Your task to perform on an android device: Open calendar and show me the second week of next month Image 0: 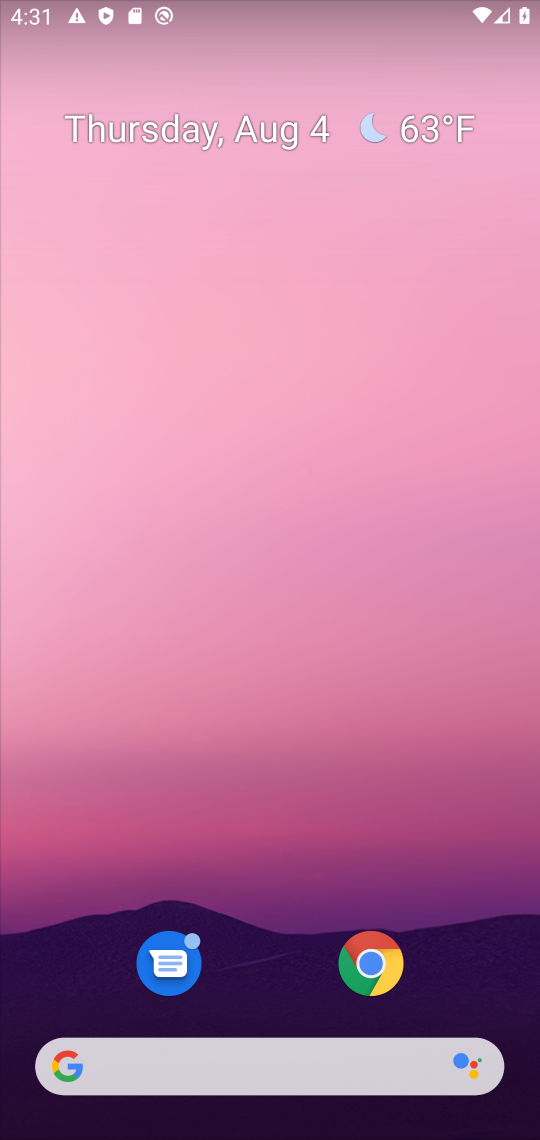
Step 0: press home button
Your task to perform on an android device: Open calendar and show me the second week of next month Image 1: 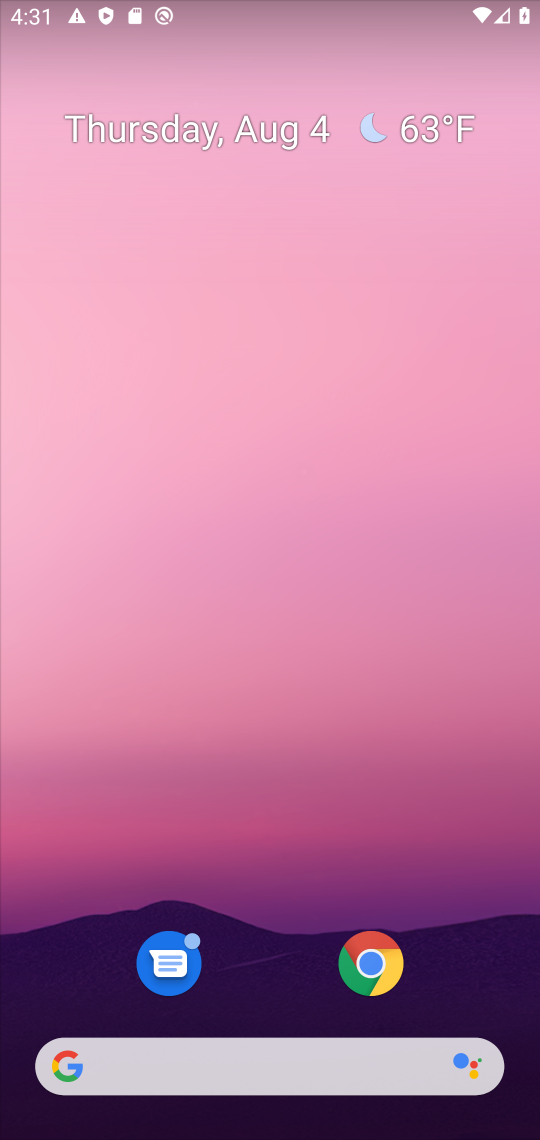
Step 1: drag from (251, 849) to (236, 290)
Your task to perform on an android device: Open calendar and show me the second week of next month Image 2: 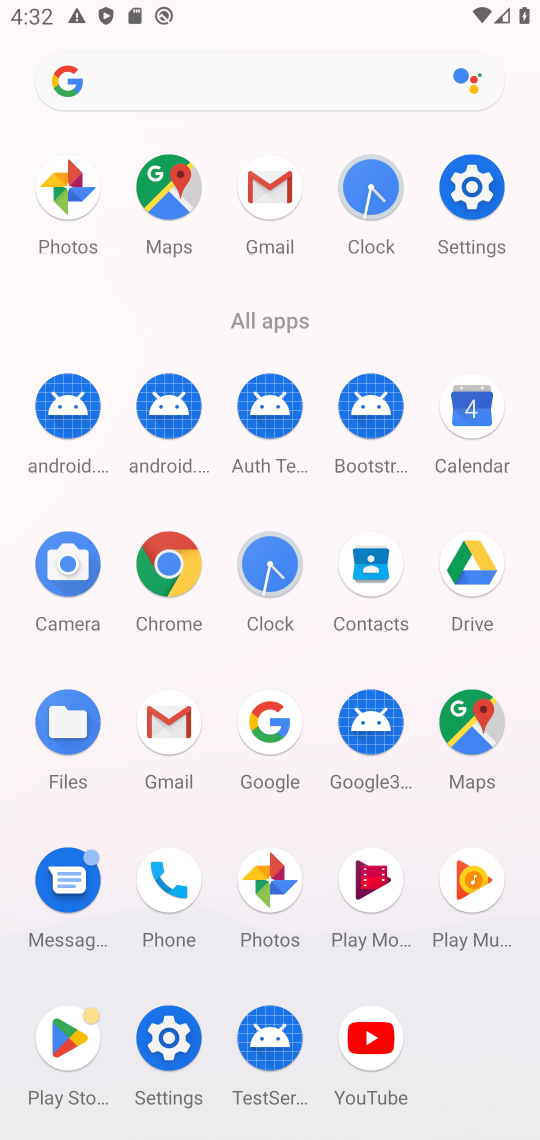
Step 2: click (477, 396)
Your task to perform on an android device: Open calendar and show me the second week of next month Image 3: 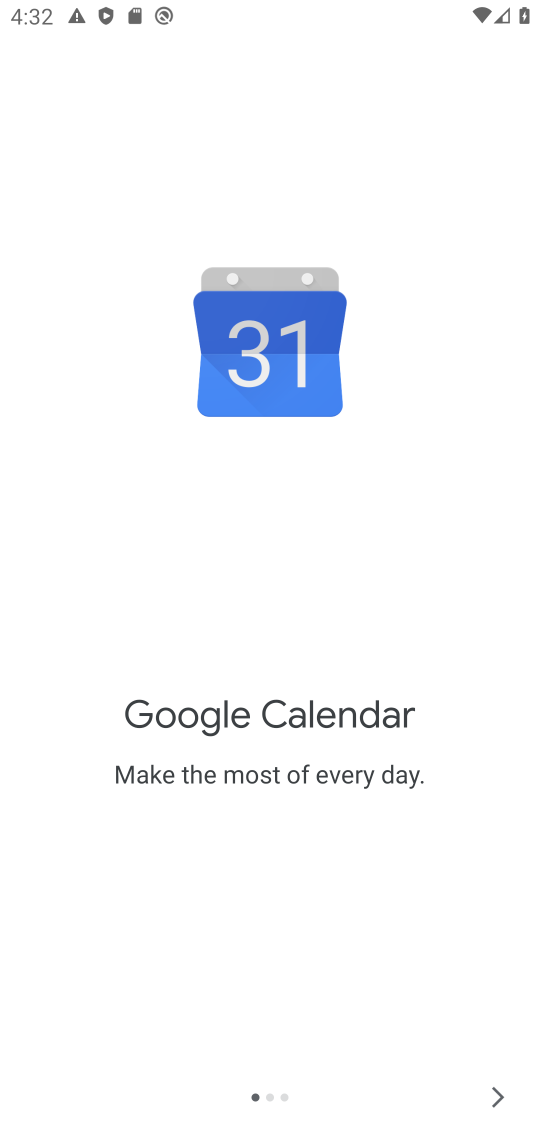
Step 3: click (491, 1093)
Your task to perform on an android device: Open calendar and show me the second week of next month Image 4: 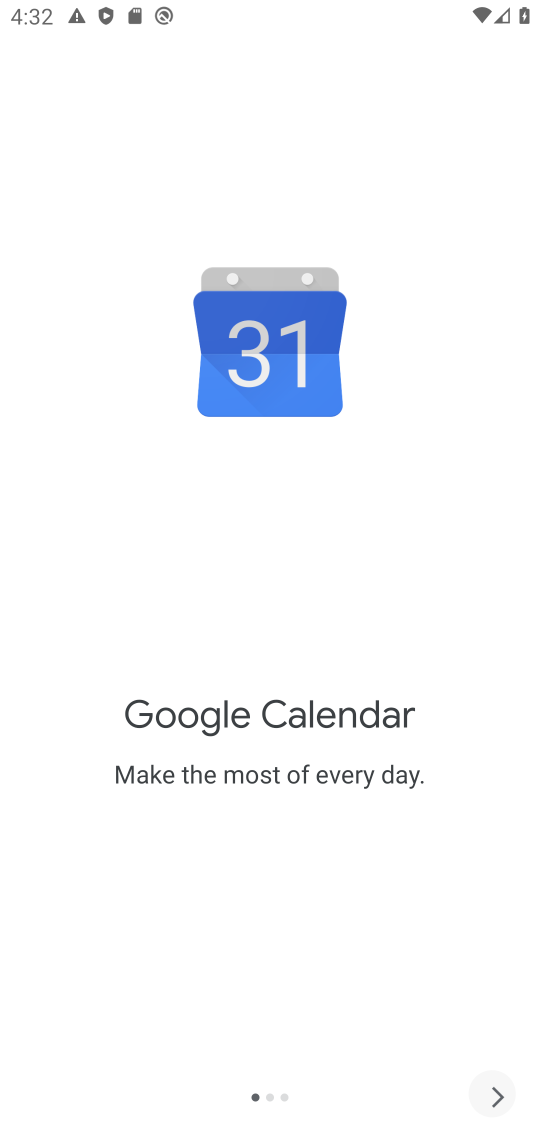
Step 4: click (491, 1093)
Your task to perform on an android device: Open calendar and show me the second week of next month Image 5: 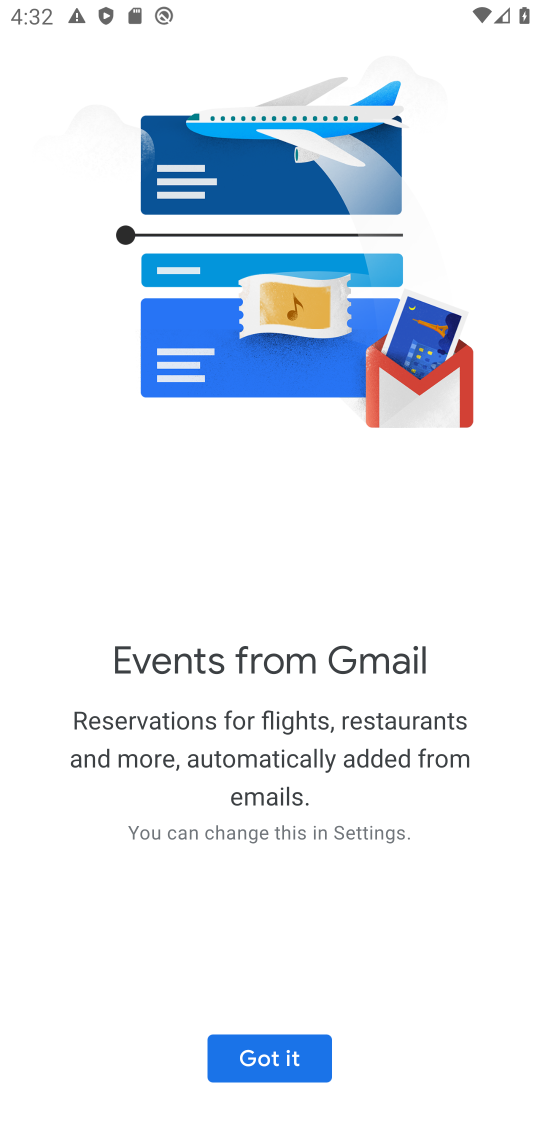
Step 5: click (291, 1060)
Your task to perform on an android device: Open calendar and show me the second week of next month Image 6: 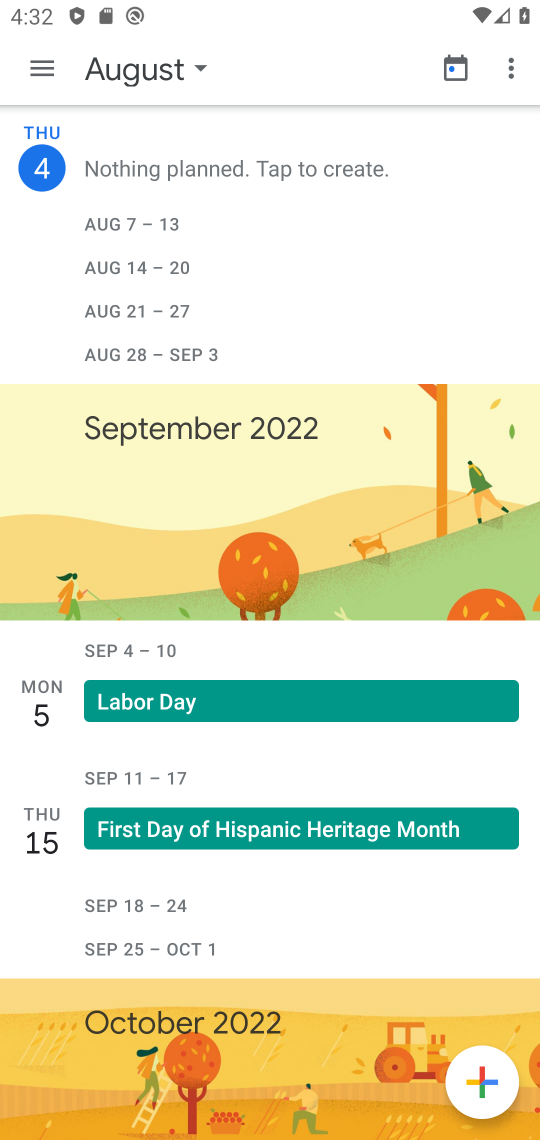
Step 6: click (46, 71)
Your task to perform on an android device: Open calendar and show me the second week of next month Image 7: 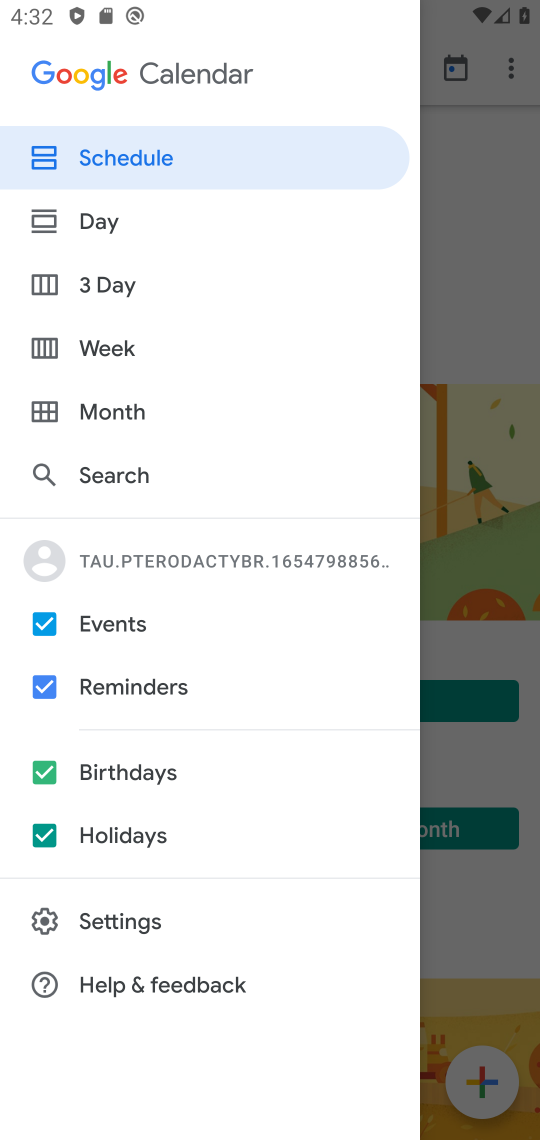
Step 7: click (99, 342)
Your task to perform on an android device: Open calendar and show me the second week of next month Image 8: 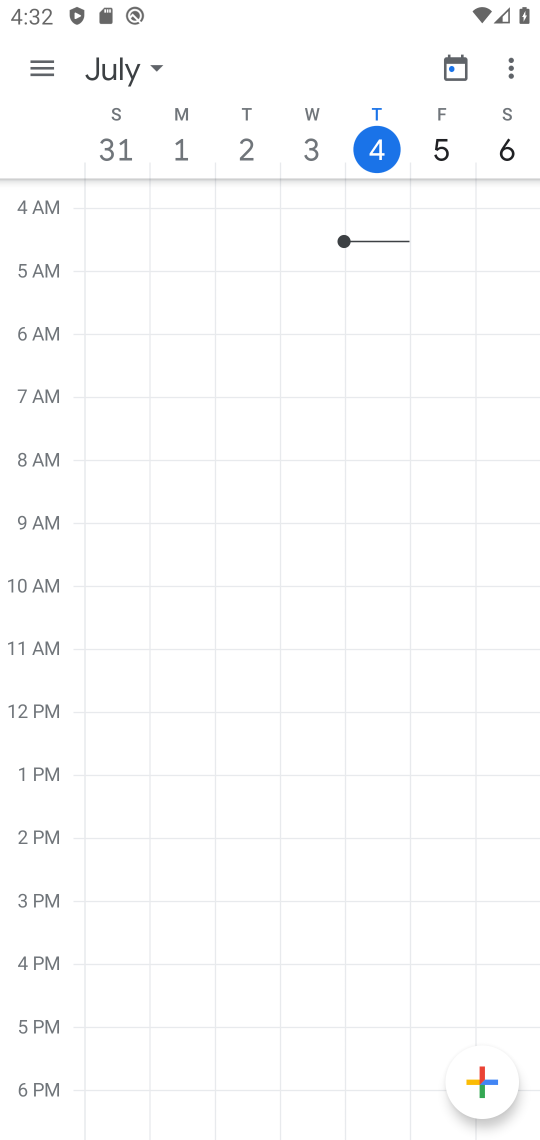
Step 8: click (158, 60)
Your task to perform on an android device: Open calendar and show me the second week of next month Image 9: 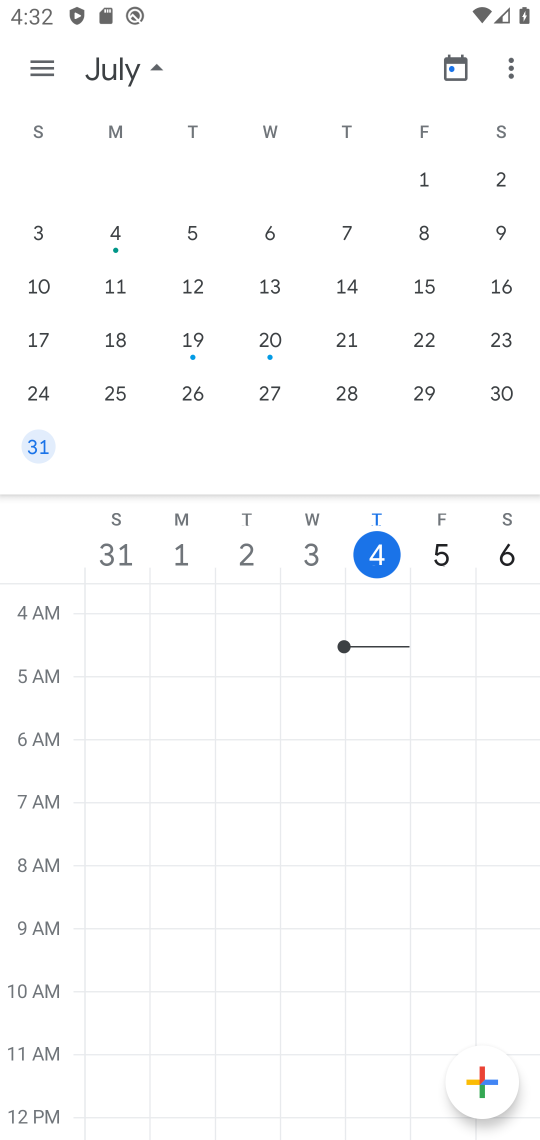
Step 9: drag from (423, 302) to (40, 230)
Your task to perform on an android device: Open calendar and show me the second week of next month Image 10: 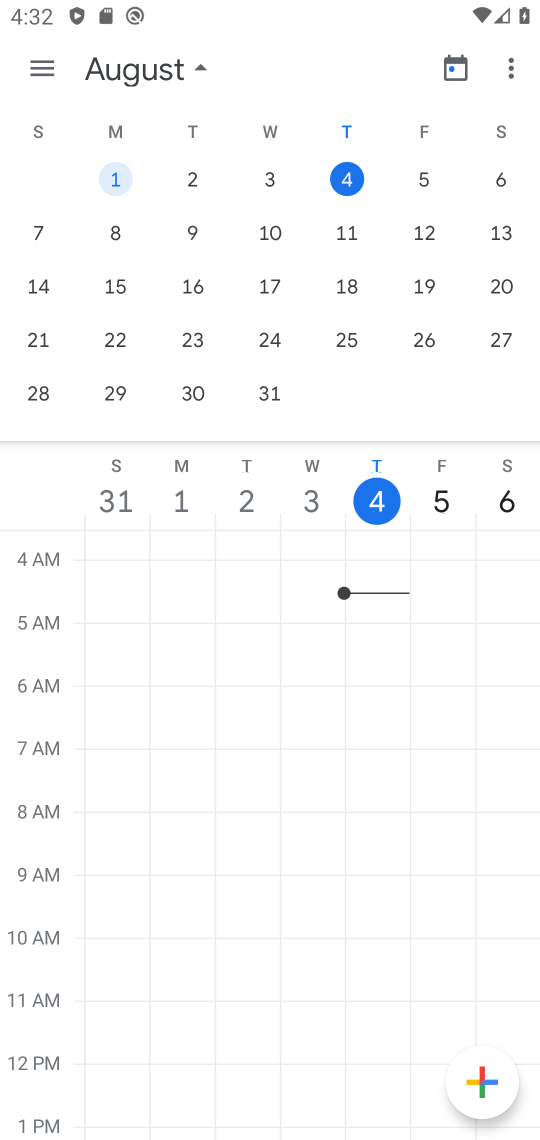
Step 10: drag from (503, 293) to (15, 345)
Your task to perform on an android device: Open calendar and show me the second week of next month Image 11: 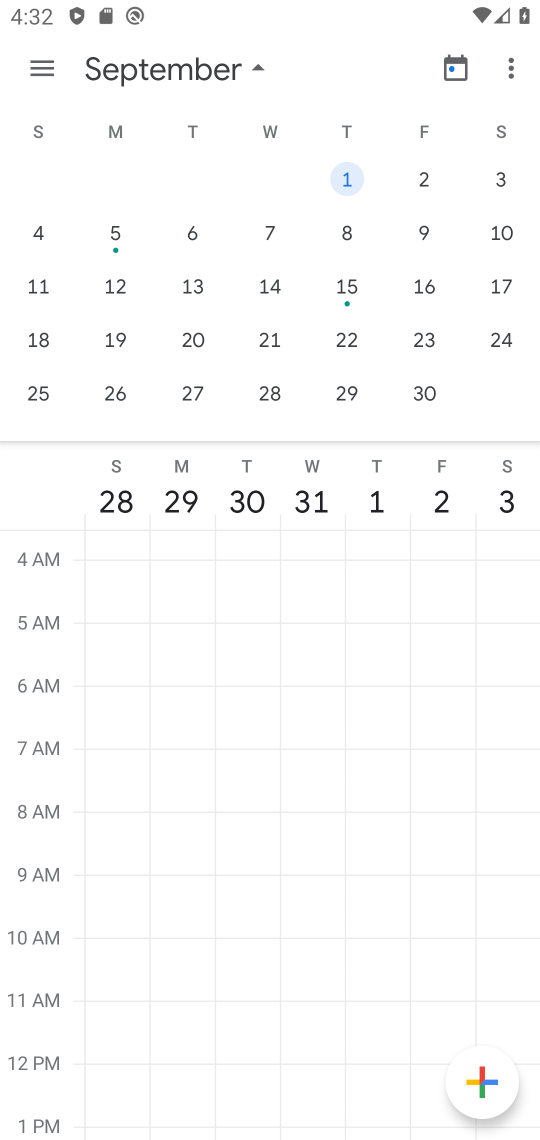
Step 11: click (270, 281)
Your task to perform on an android device: Open calendar and show me the second week of next month Image 12: 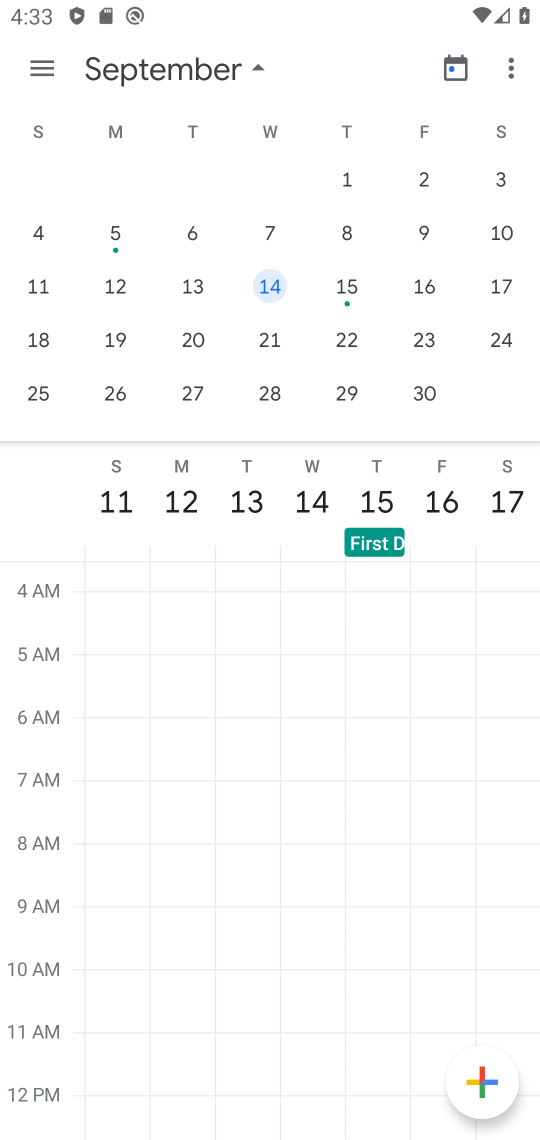
Step 12: task complete